Your task to perform on an android device: Find coffee shops on Maps Image 0: 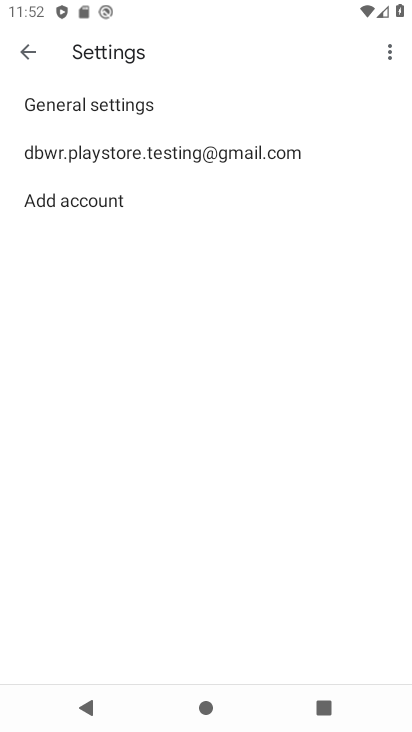
Step 0: press home button
Your task to perform on an android device: Find coffee shops on Maps Image 1: 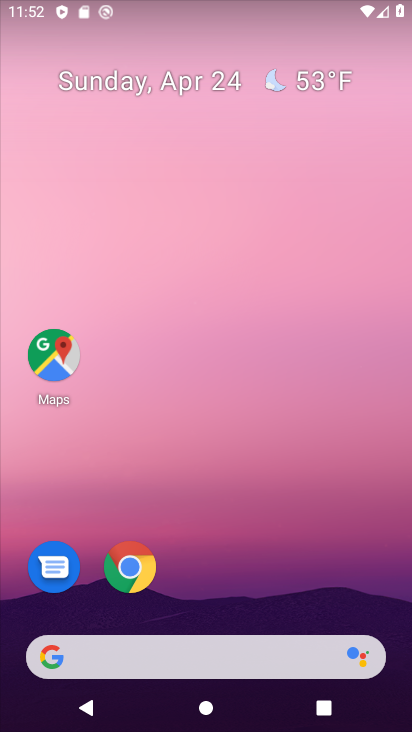
Step 1: click (43, 351)
Your task to perform on an android device: Find coffee shops on Maps Image 2: 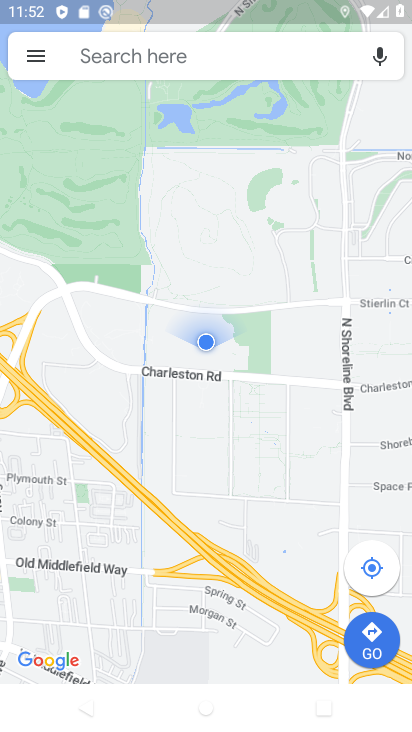
Step 2: click (194, 56)
Your task to perform on an android device: Find coffee shops on Maps Image 3: 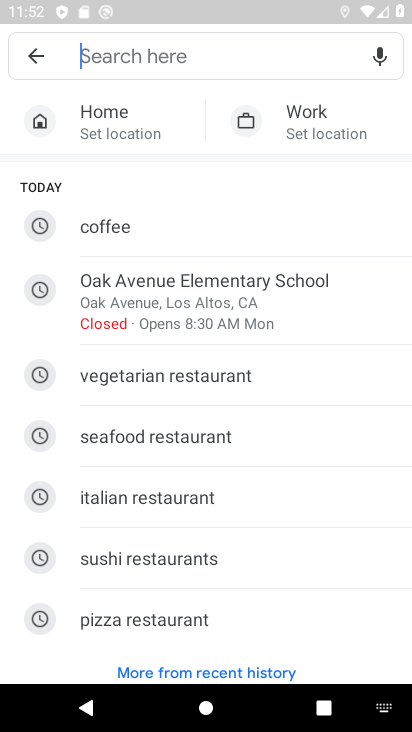
Step 3: click (129, 221)
Your task to perform on an android device: Find coffee shops on Maps Image 4: 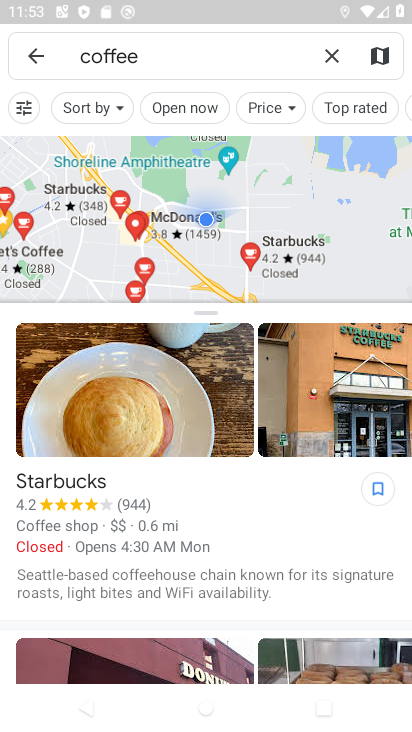
Step 4: task complete